Your task to perform on an android device: turn off priority inbox in the gmail app Image 0: 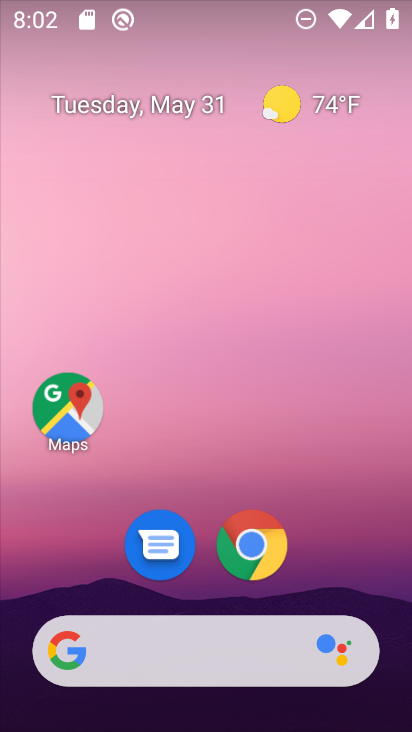
Step 0: drag from (347, 510) to (199, 60)
Your task to perform on an android device: turn off priority inbox in the gmail app Image 1: 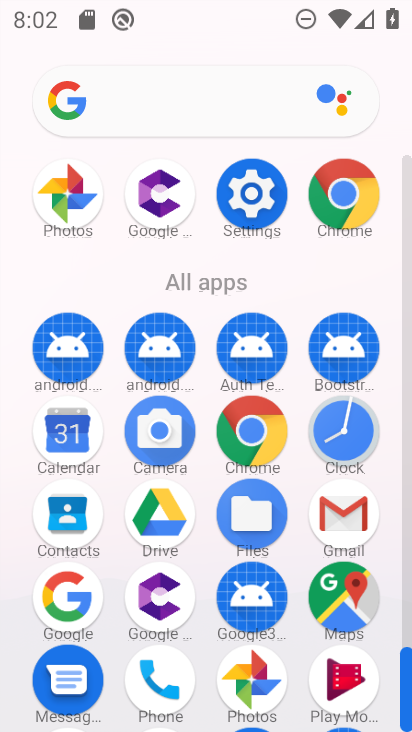
Step 1: drag from (5, 535) to (18, 230)
Your task to perform on an android device: turn off priority inbox in the gmail app Image 2: 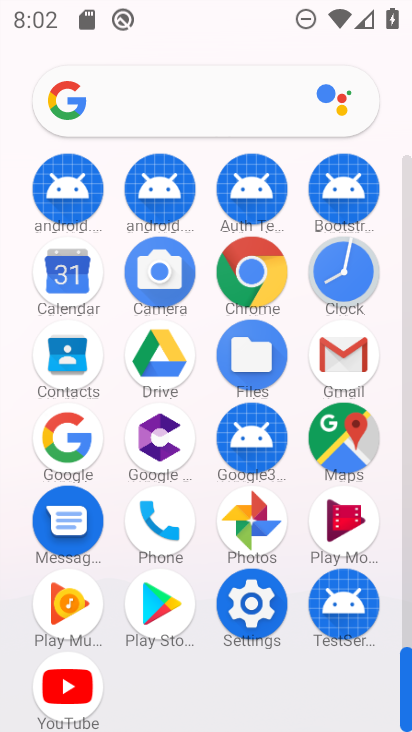
Step 2: click (344, 350)
Your task to perform on an android device: turn off priority inbox in the gmail app Image 3: 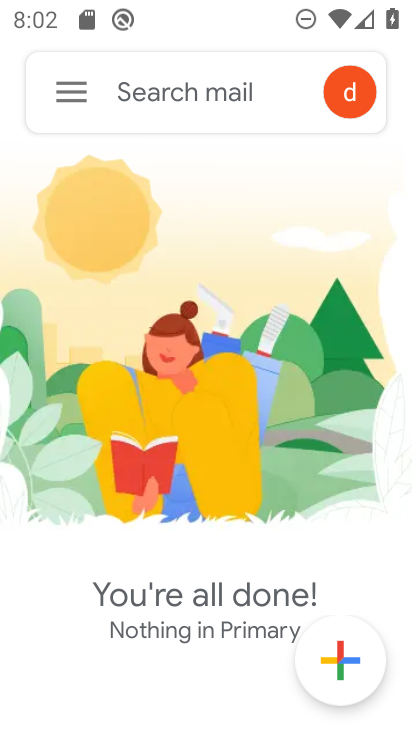
Step 3: click (67, 97)
Your task to perform on an android device: turn off priority inbox in the gmail app Image 4: 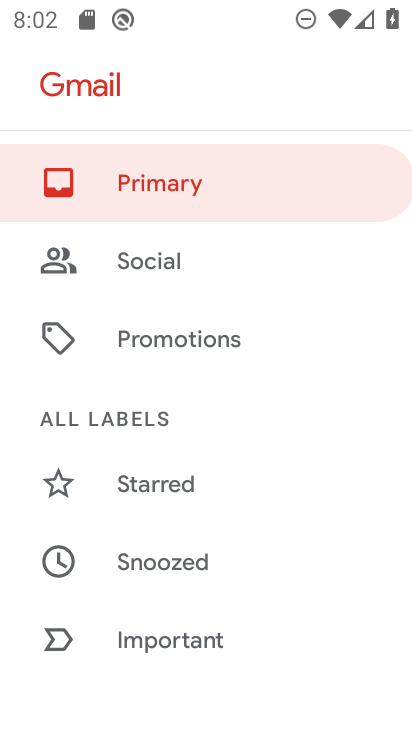
Step 4: drag from (241, 580) to (274, 189)
Your task to perform on an android device: turn off priority inbox in the gmail app Image 5: 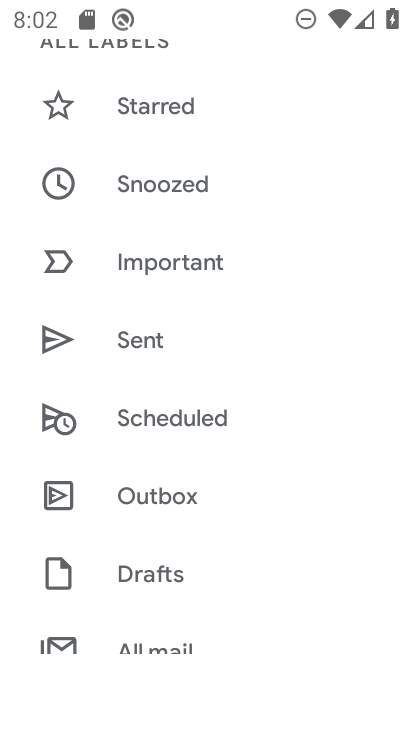
Step 5: drag from (247, 641) to (226, 169)
Your task to perform on an android device: turn off priority inbox in the gmail app Image 6: 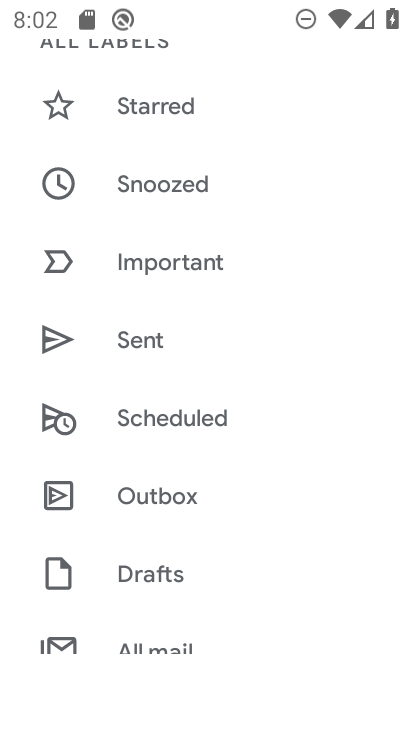
Step 6: drag from (207, 607) to (219, 207)
Your task to perform on an android device: turn off priority inbox in the gmail app Image 7: 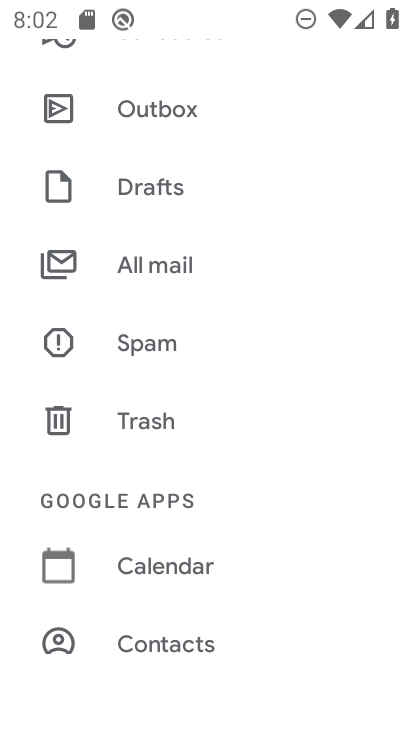
Step 7: drag from (225, 627) to (254, 202)
Your task to perform on an android device: turn off priority inbox in the gmail app Image 8: 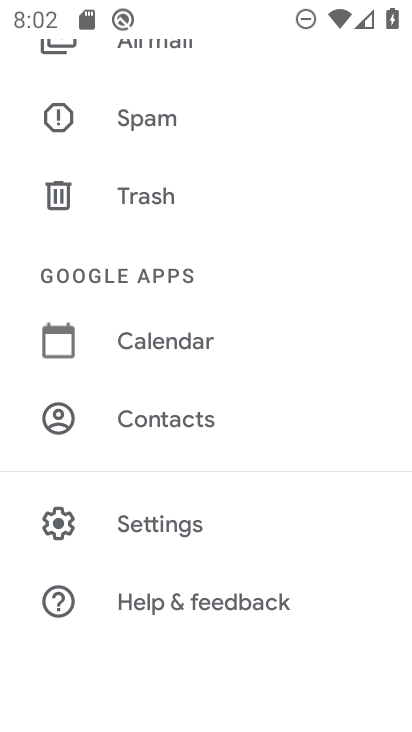
Step 8: click (170, 528)
Your task to perform on an android device: turn off priority inbox in the gmail app Image 9: 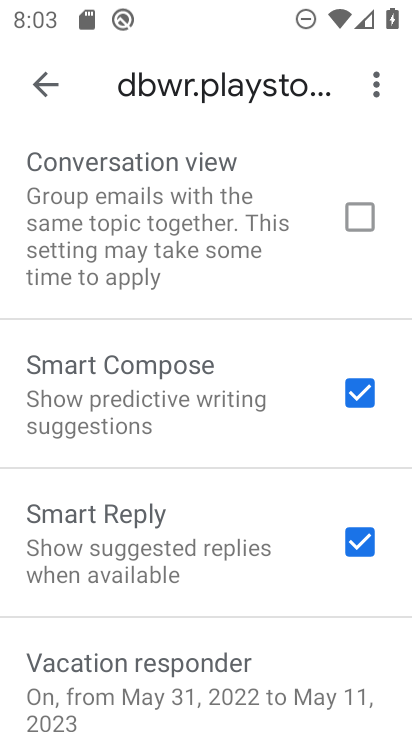
Step 9: drag from (202, 644) to (241, 183)
Your task to perform on an android device: turn off priority inbox in the gmail app Image 10: 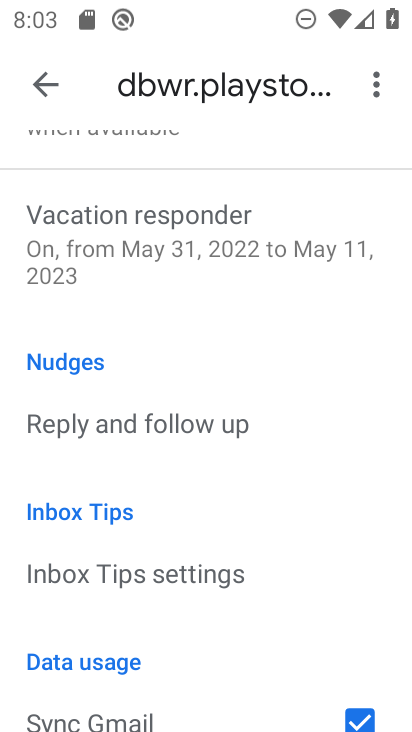
Step 10: drag from (216, 641) to (249, 245)
Your task to perform on an android device: turn off priority inbox in the gmail app Image 11: 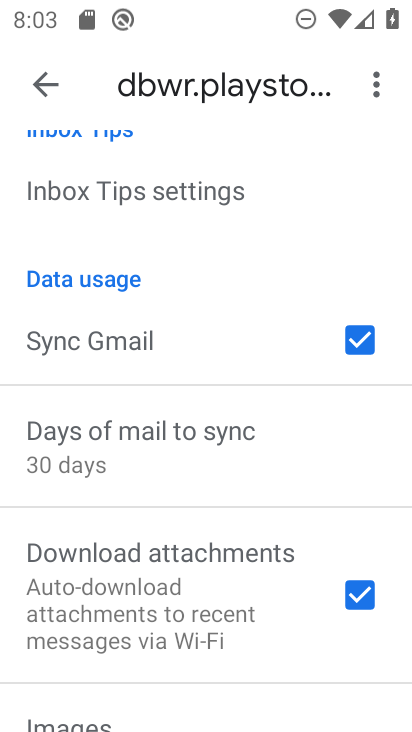
Step 11: drag from (249, 622) to (285, 271)
Your task to perform on an android device: turn off priority inbox in the gmail app Image 12: 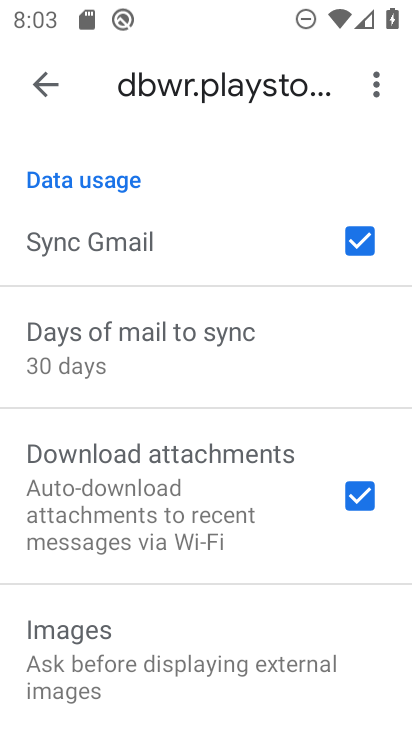
Step 12: drag from (271, 341) to (251, 687)
Your task to perform on an android device: turn off priority inbox in the gmail app Image 13: 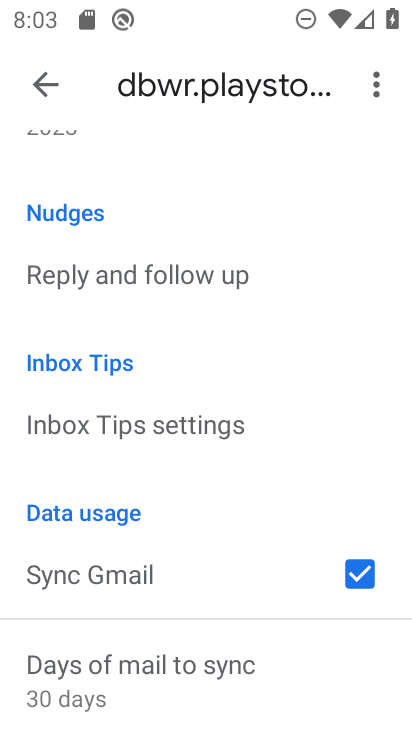
Step 13: drag from (228, 266) to (228, 655)
Your task to perform on an android device: turn off priority inbox in the gmail app Image 14: 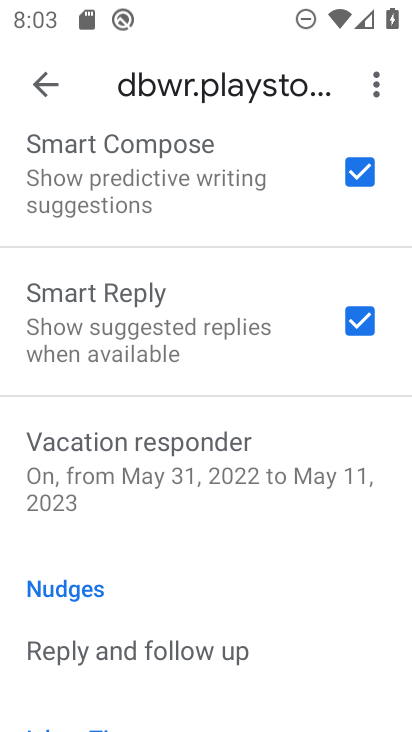
Step 14: drag from (221, 376) to (222, 667)
Your task to perform on an android device: turn off priority inbox in the gmail app Image 15: 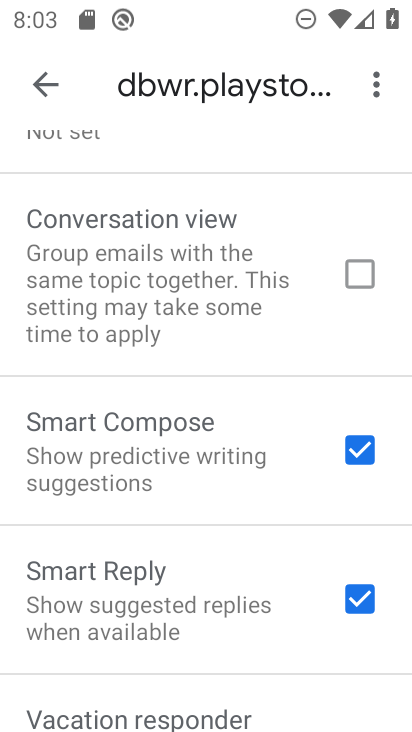
Step 15: drag from (199, 279) to (204, 608)
Your task to perform on an android device: turn off priority inbox in the gmail app Image 16: 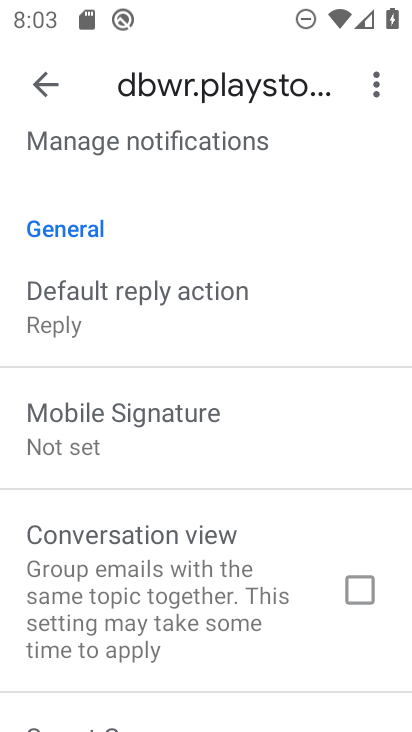
Step 16: drag from (246, 270) to (230, 631)
Your task to perform on an android device: turn off priority inbox in the gmail app Image 17: 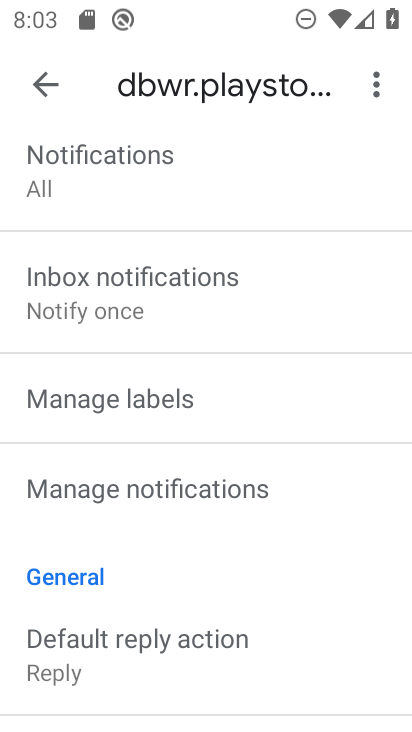
Step 17: drag from (278, 279) to (265, 614)
Your task to perform on an android device: turn off priority inbox in the gmail app Image 18: 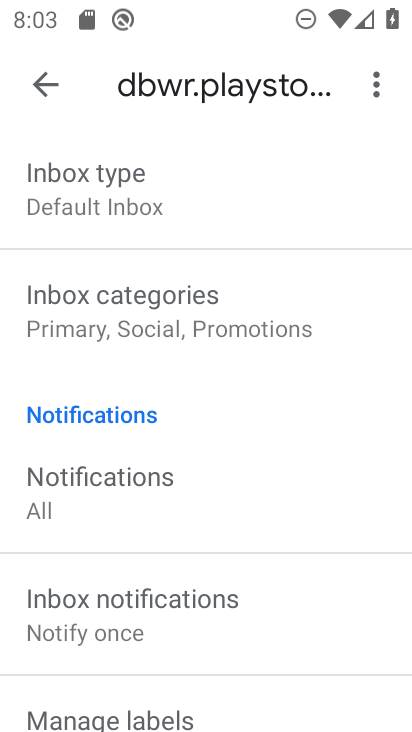
Step 18: click (172, 179)
Your task to perform on an android device: turn off priority inbox in the gmail app Image 19: 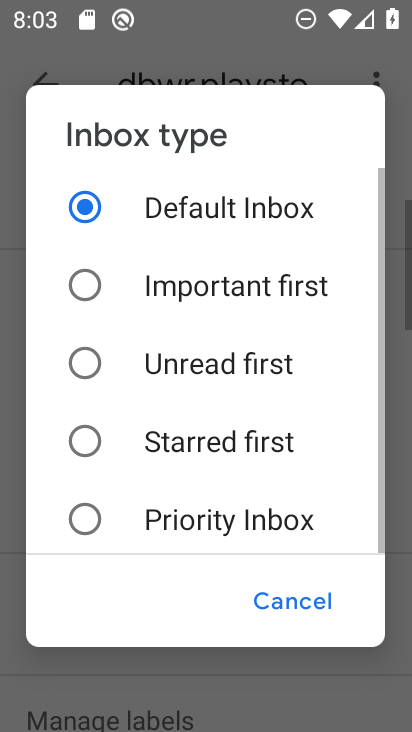
Step 19: click (190, 525)
Your task to perform on an android device: turn off priority inbox in the gmail app Image 20: 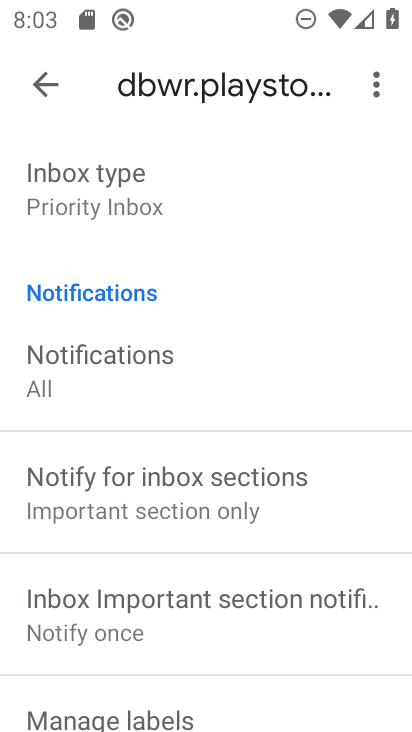
Step 20: click (194, 194)
Your task to perform on an android device: turn off priority inbox in the gmail app Image 21: 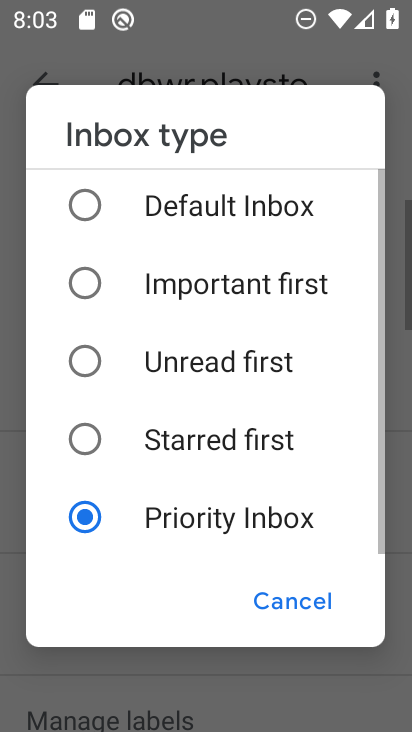
Step 21: click (194, 194)
Your task to perform on an android device: turn off priority inbox in the gmail app Image 22: 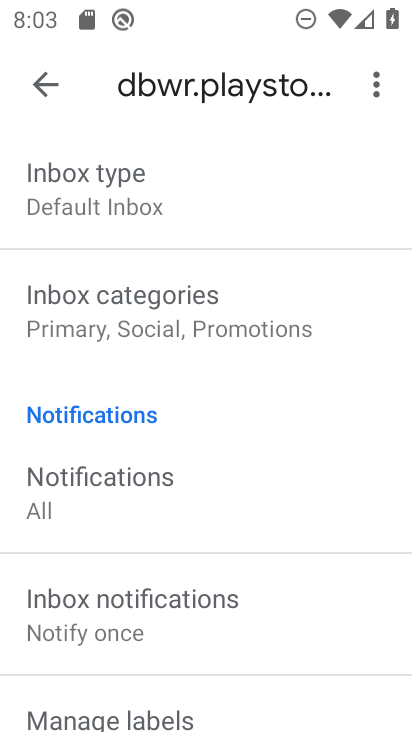
Step 22: task complete